Your task to perform on an android device: change notification settings in the gmail app Image 0: 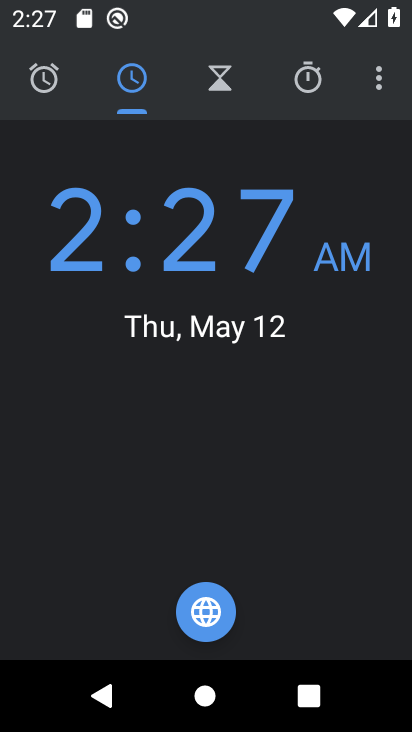
Step 0: press home button
Your task to perform on an android device: change notification settings in the gmail app Image 1: 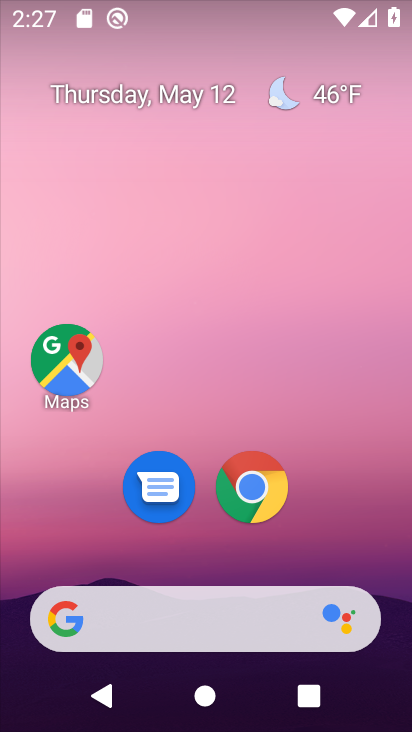
Step 1: drag from (336, 540) to (374, 0)
Your task to perform on an android device: change notification settings in the gmail app Image 2: 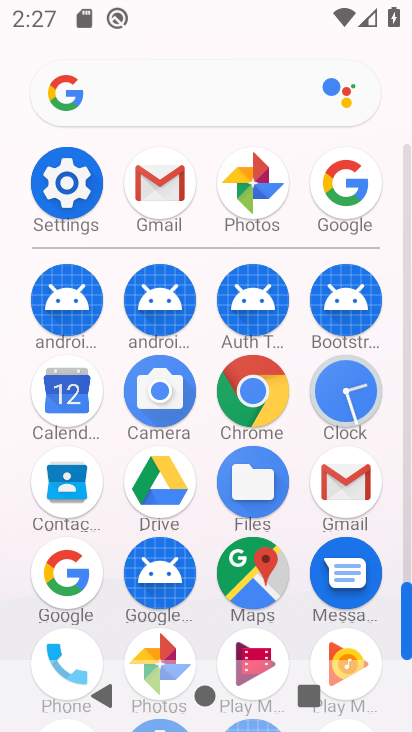
Step 2: click (327, 484)
Your task to perform on an android device: change notification settings in the gmail app Image 3: 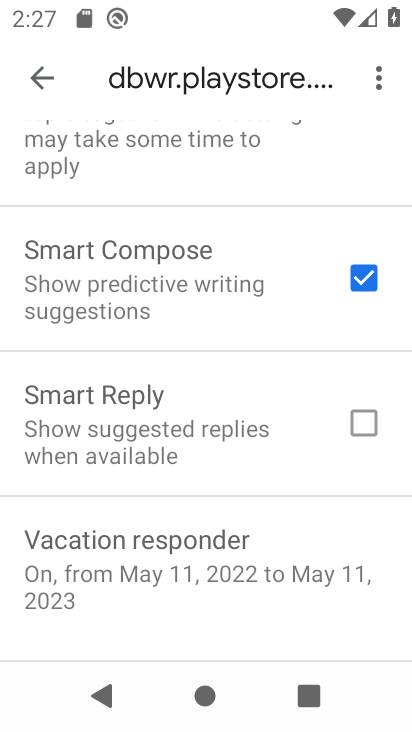
Step 3: drag from (184, 304) to (190, 584)
Your task to perform on an android device: change notification settings in the gmail app Image 4: 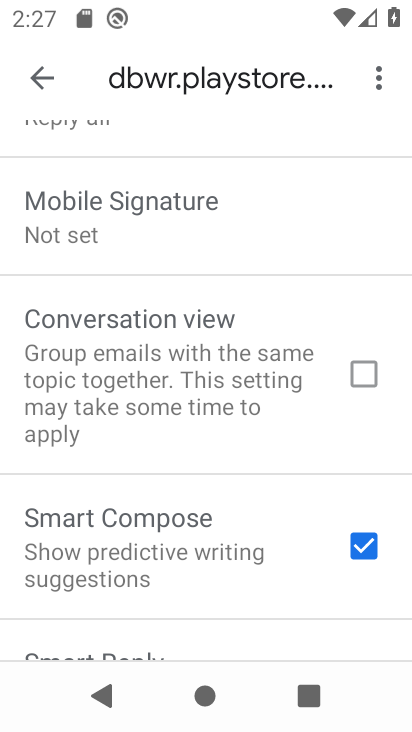
Step 4: drag from (243, 276) to (238, 664)
Your task to perform on an android device: change notification settings in the gmail app Image 5: 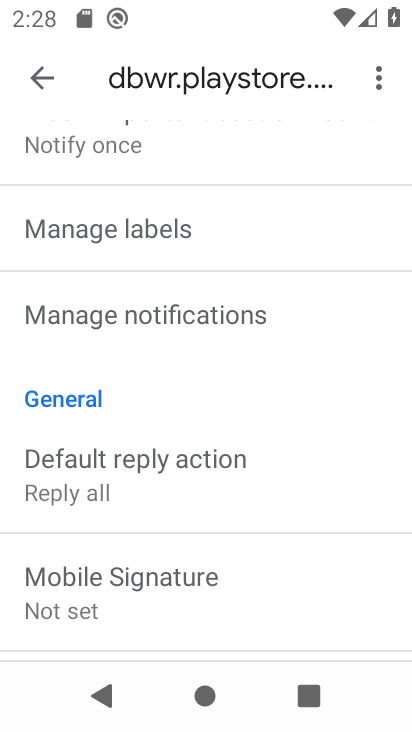
Step 5: click (184, 320)
Your task to perform on an android device: change notification settings in the gmail app Image 6: 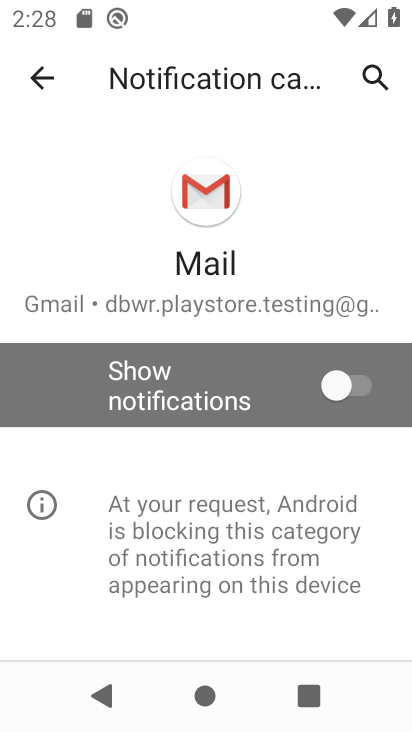
Step 6: click (345, 387)
Your task to perform on an android device: change notification settings in the gmail app Image 7: 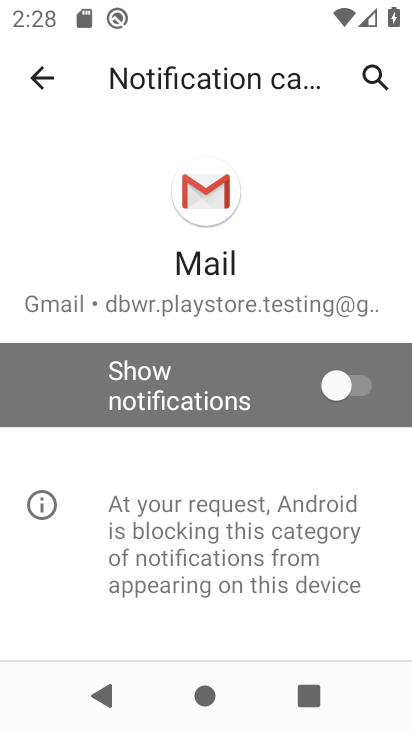
Step 7: click (352, 382)
Your task to perform on an android device: change notification settings in the gmail app Image 8: 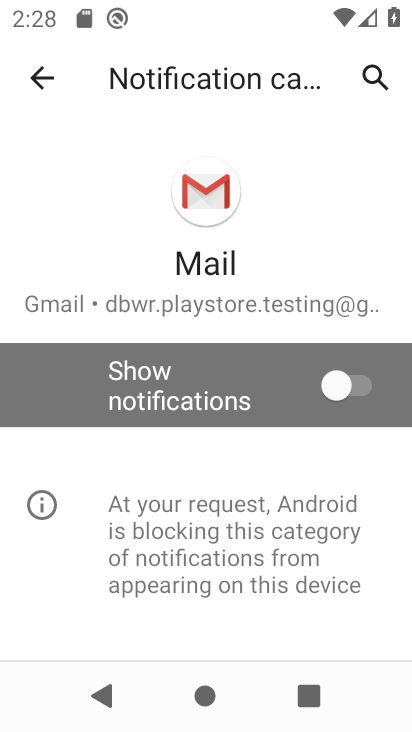
Step 8: click (336, 374)
Your task to perform on an android device: change notification settings in the gmail app Image 9: 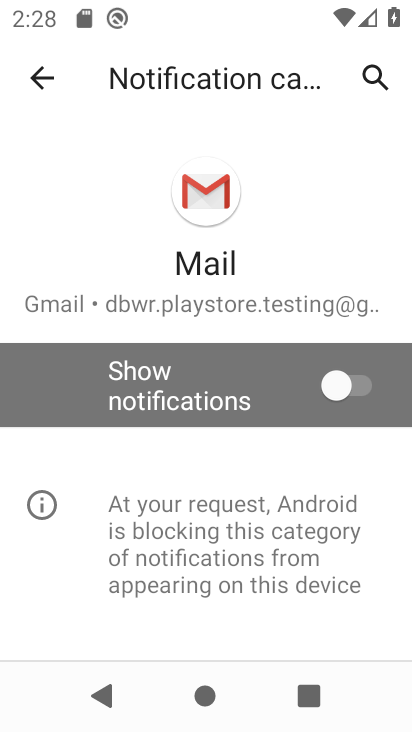
Step 9: click (327, 364)
Your task to perform on an android device: change notification settings in the gmail app Image 10: 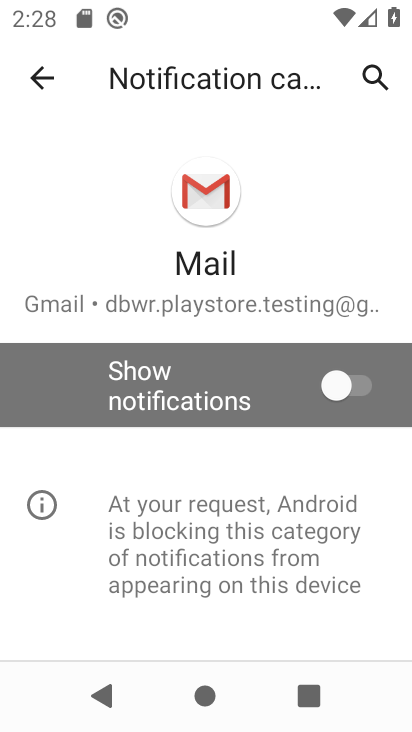
Step 10: click (341, 382)
Your task to perform on an android device: change notification settings in the gmail app Image 11: 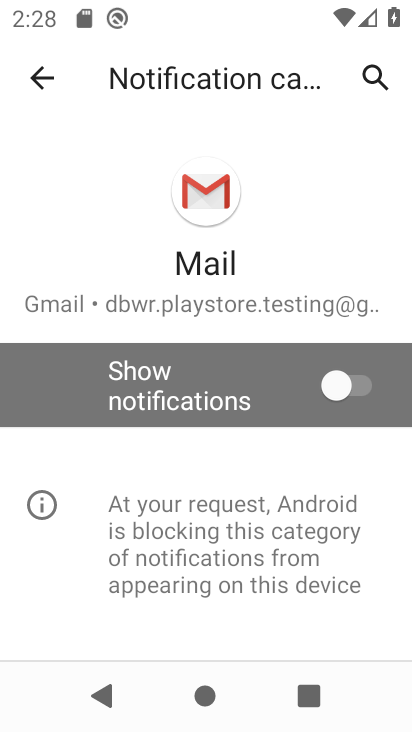
Step 11: task complete